Your task to perform on an android device: toggle notification dots Image 0: 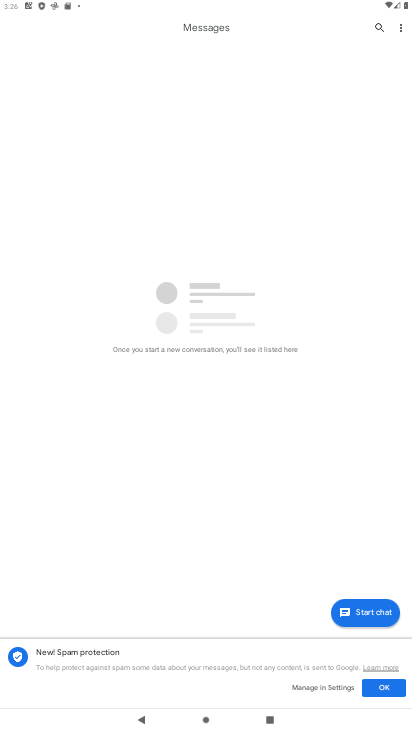
Step 0: press home button
Your task to perform on an android device: toggle notification dots Image 1: 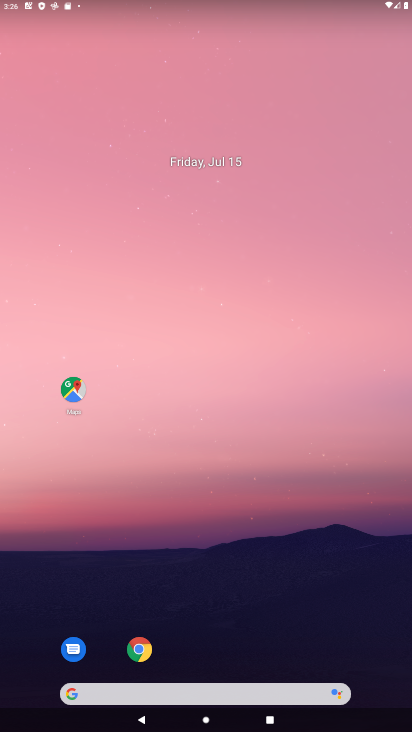
Step 1: drag from (341, 607) to (315, 176)
Your task to perform on an android device: toggle notification dots Image 2: 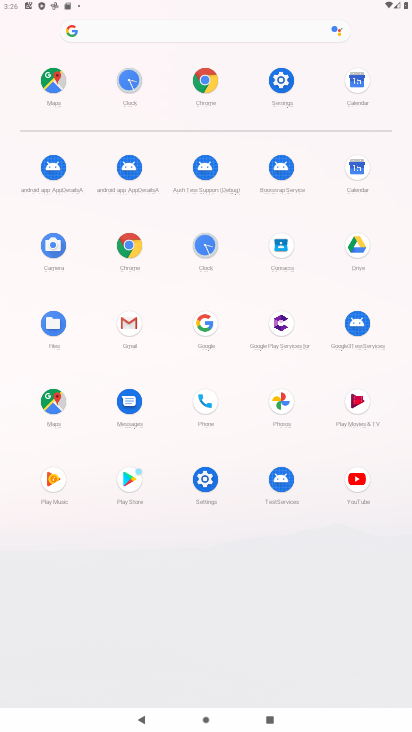
Step 2: click (278, 79)
Your task to perform on an android device: toggle notification dots Image 3: 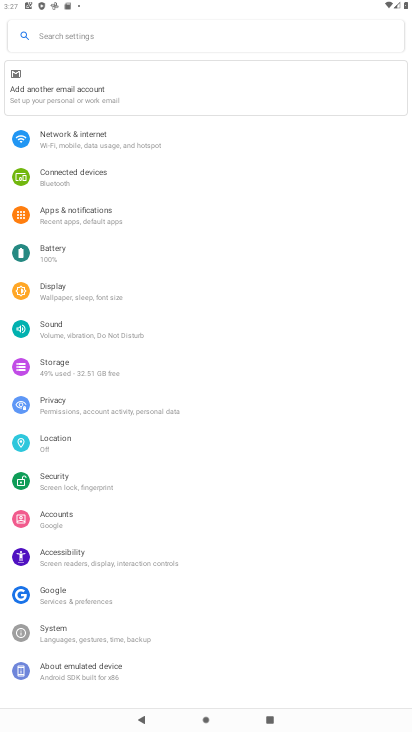
Step 3: click (100, 210)
Your task to perform on an android device: toggle notification dots Image 4: 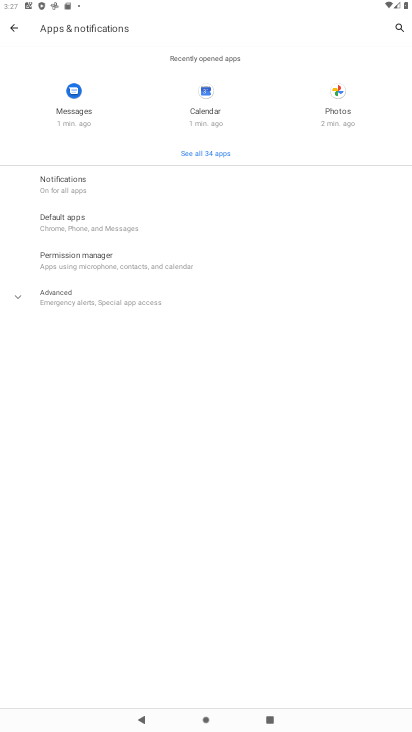
Step 4: click (124, 182)
Your task to perform on an android device: toggle notification dots Image 5: 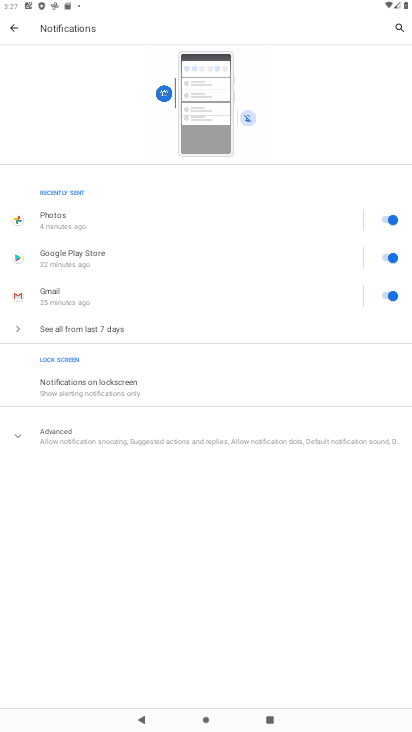
Step 5: click (110, 429)
Your task to perform on an android device: toggle notification dots Image 6: 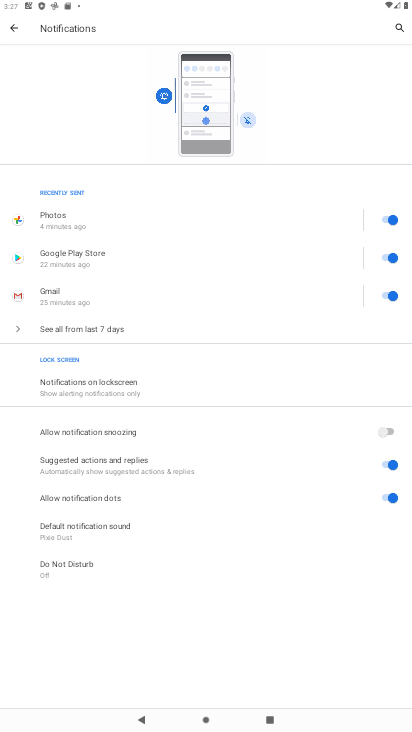
Step 6: click (395, 493)
Your task to perform on an android device: toggle notification dots Image 7: 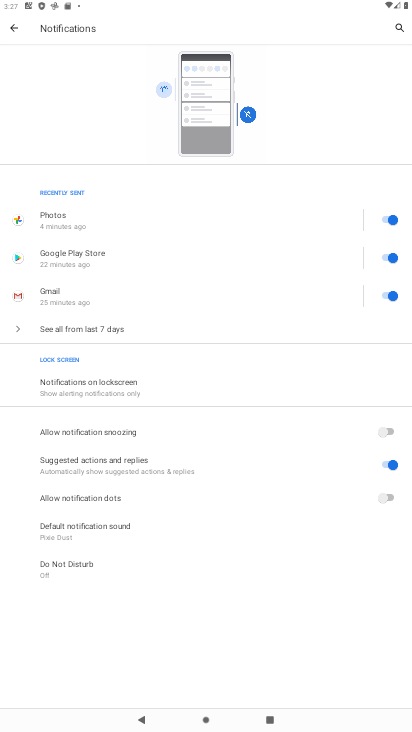
Step 7: task complete